Your task to perform on an android device: Open my contact list Image 0: 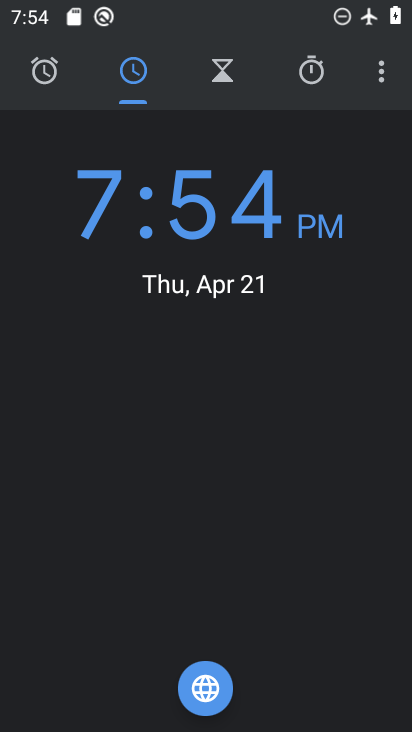
Step 0: press home button
Your task to perform on an android device: Open my contact list Image 1: 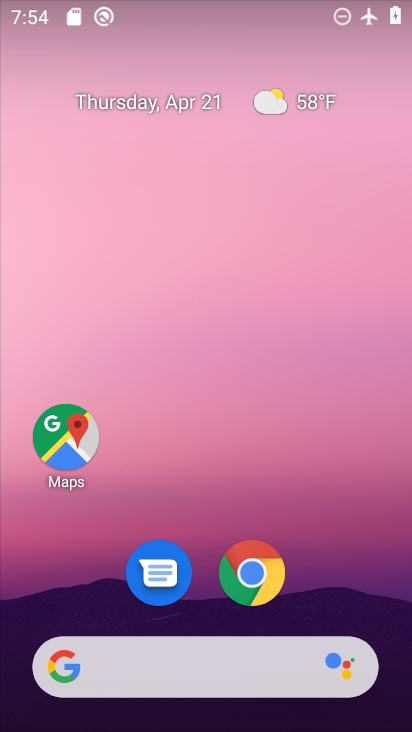
Step 1: drag from (181, 620) to (240, 195)
Your task to perform on an android device: Open my contact list Image 2: 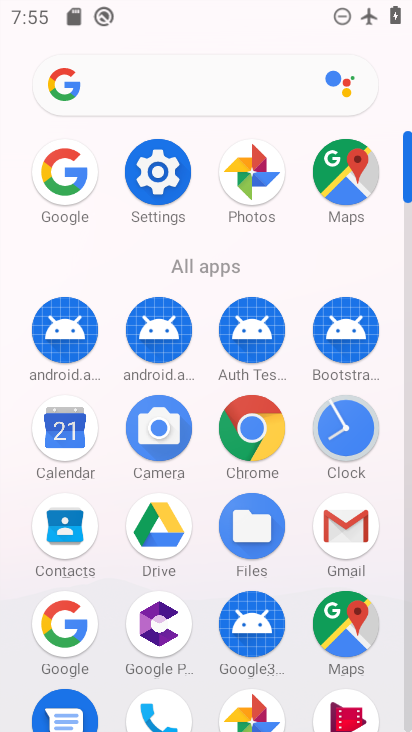
Step 2: click (60, 526)
Your task to perform on an android device: Open my contact list Image 3: 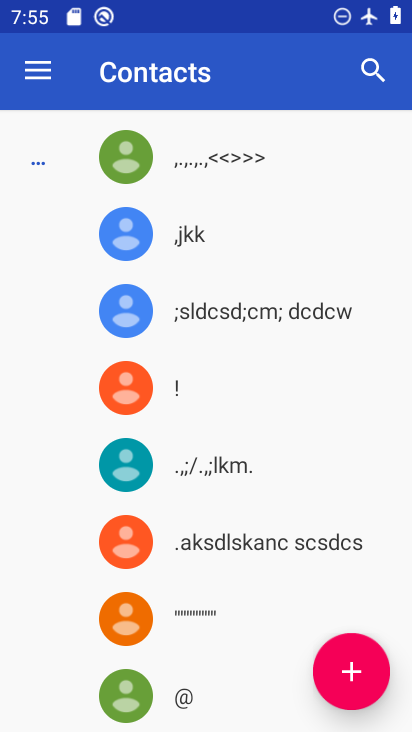
Step 3: task complete